Your task to perform on an android device: Do I have any events this weekend? Image 0: 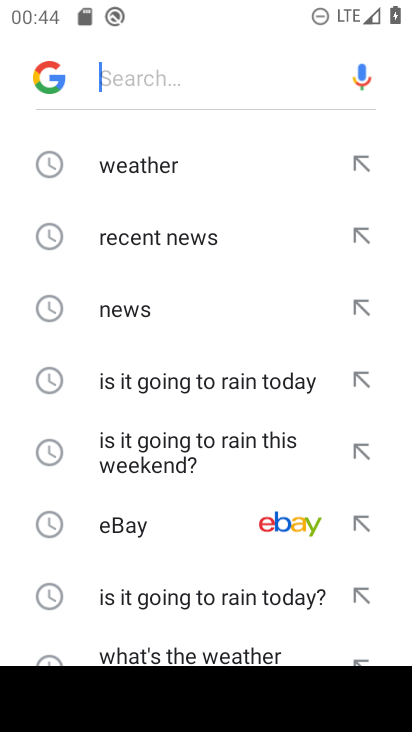
Step 0: press home button
Your task to perform on an android device: Do I have any events this weekend? Image 1: 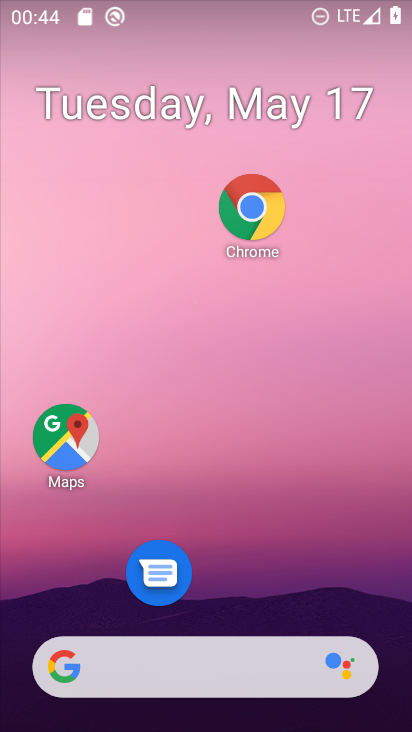
Step 1: drag from (209, 654) to (310, 5)
Your task to perform on an android device: Do I have any events this weekend? Image 2: 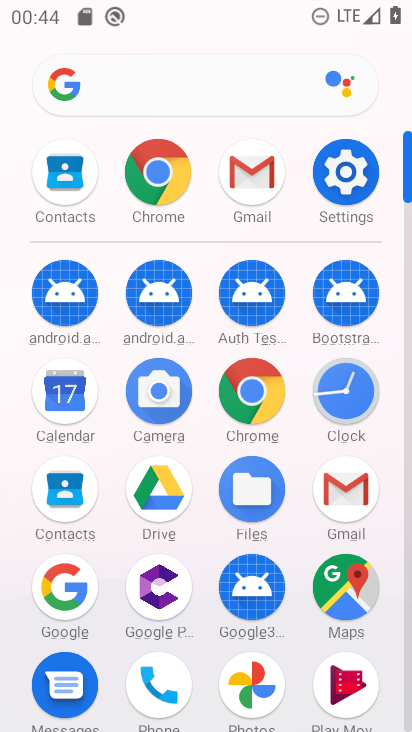
Step 2: click (38, 391)
Your task to perform on an android device: Do I have any events this weekend? Image 3: 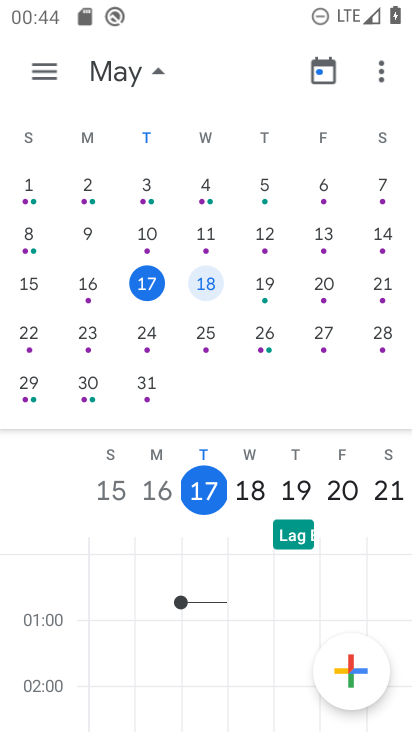
Step 3: click (376, 281)
Your task to perform on an android device: Do I have any events this weekend? Image 4: 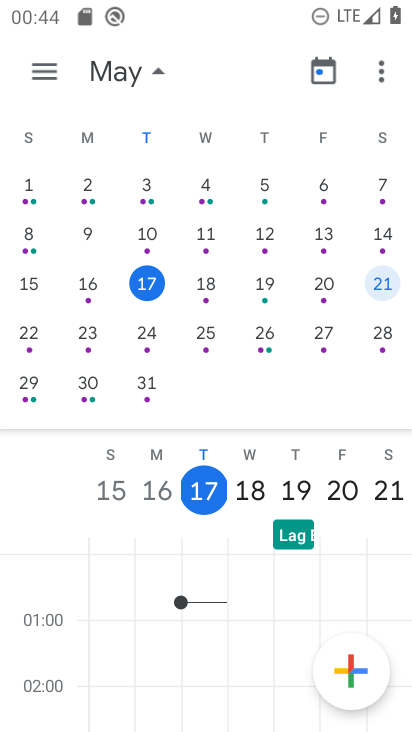
Step 4: click (385, 279)
Your task to perform on an android device: Do I have any events this weekend? Image 5: 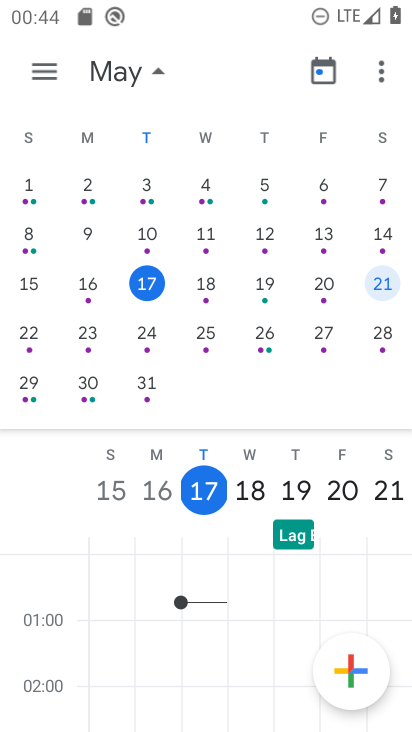
Step 5: click (390, 279)
Your task to perform on an android device: Do I have any events this weekend? Image 6: 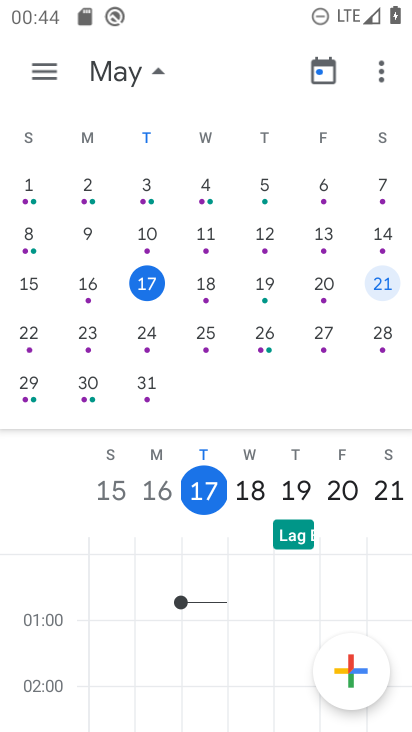
Step 6: click (387, 280)
Your task to perform on an android device: Do I have any events this weekend? Image 7: 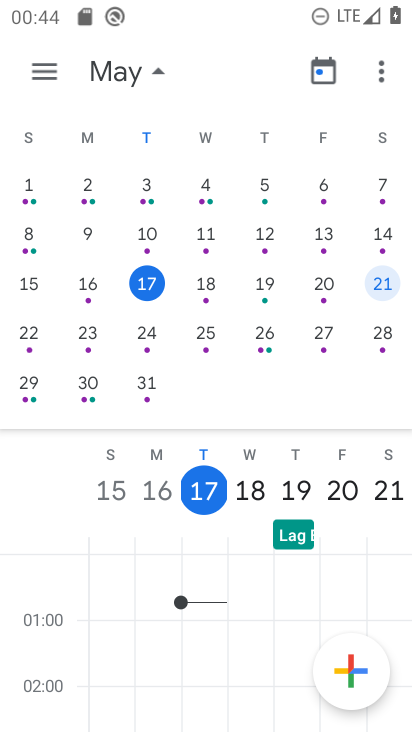
Step 7: task complete